Your task to perform on an android device: Go to sound settings Image 0: 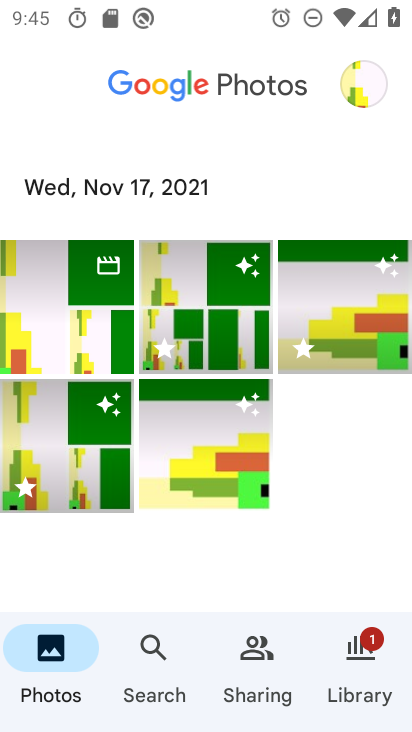
Step 0: press home button
Your task to perform on an android device: Go to sound settings Image 1: 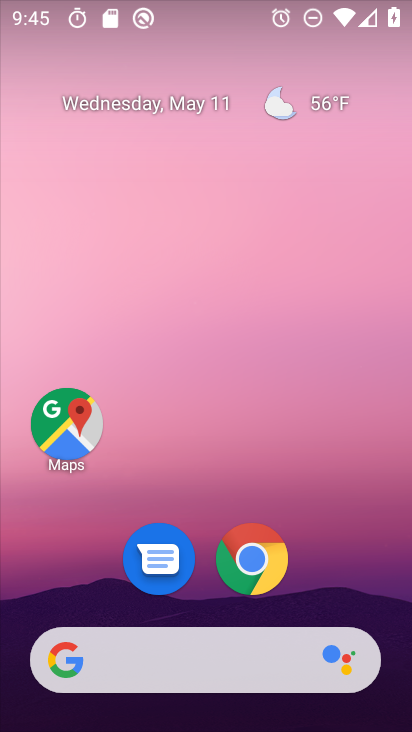
Step 1: drag from (294, 581) to (280, 21)
Your task to perform on an android device: Go to sound settings Image 2: 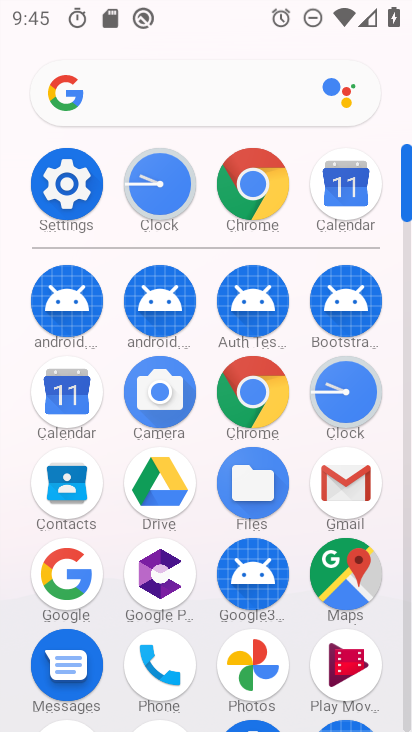
Step 2: click (67, 184)
Your task to perform on an android device: Go to sound settings Image 3: 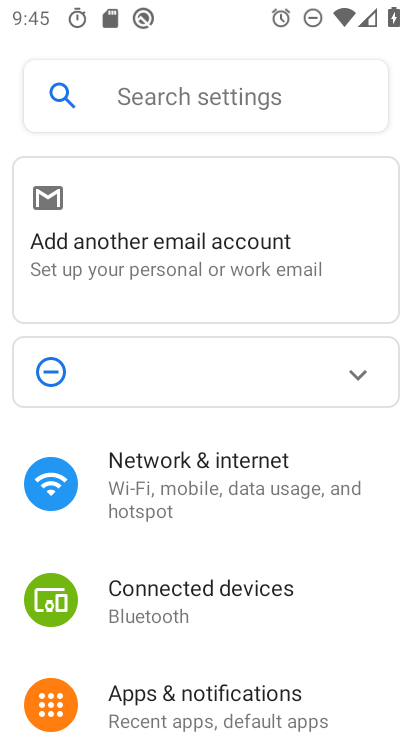
Step 3: drag from (276, 666) to (258, 305)
Your task to perform on an android device: Go to sound settings Image 4: 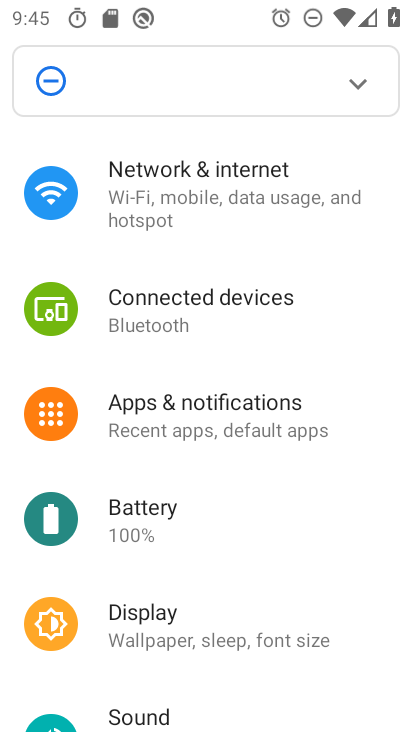
Step 4: click (277, 710)
Your task to perform on an android device: Go to sound settings Image 5: 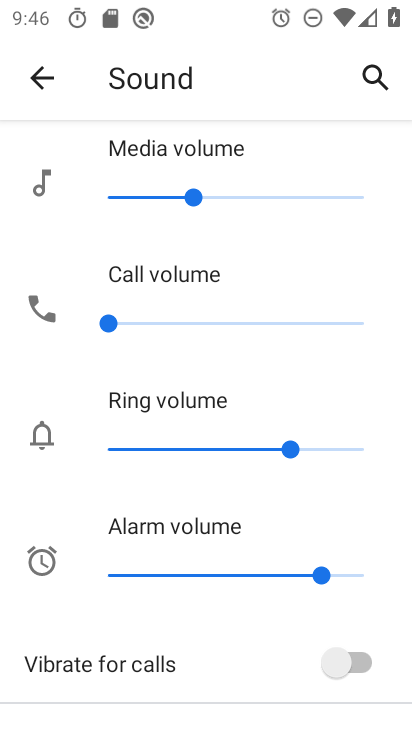
Step 5: task complete